Your task to perform on an android device: open app "Spotify: Music and Podcasts" (install if not already installed) Image 0: 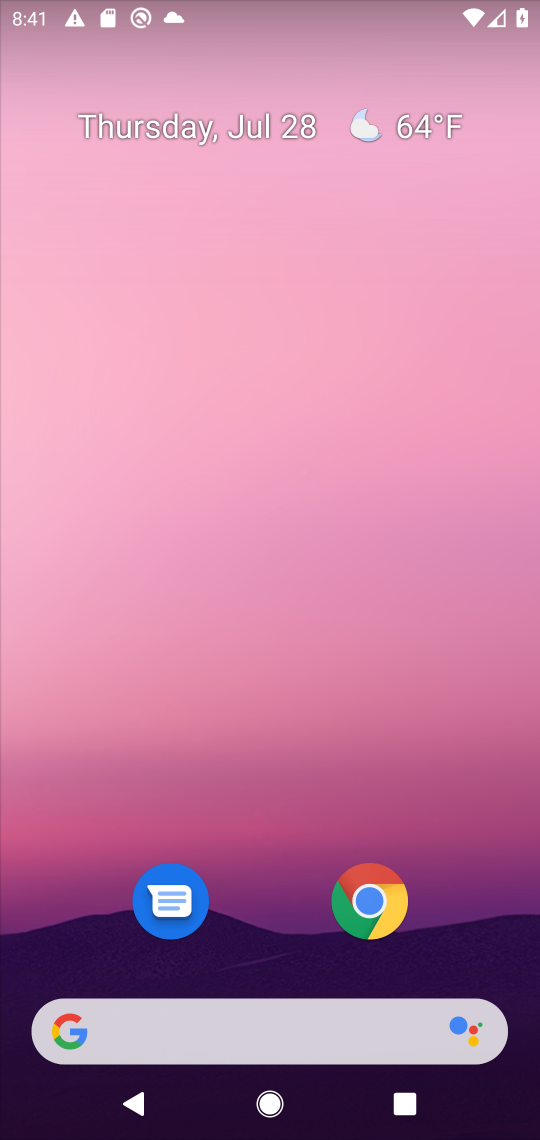
Step 0: drag from (518, 1084) to (450, 135)
Your task to perform on an android device: open app "Spotify: Music and Podcasts" (install if not already installed) Image 1: 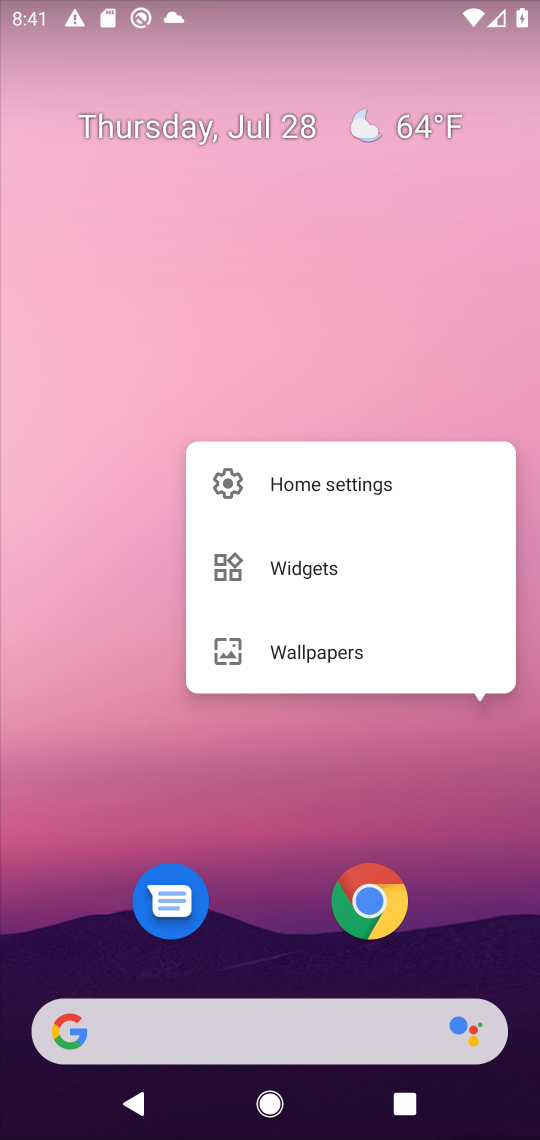
Step 1: click (76, 667)
Your task to perform on an android device: open app "Spotify: Music and Podcasts" (install if not already installed) Image 2: 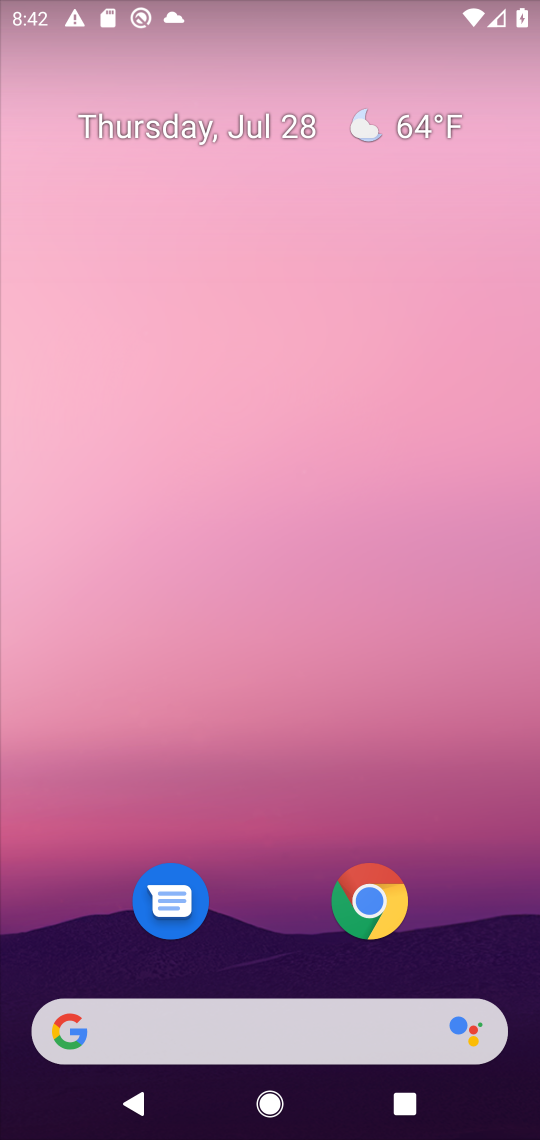
Step 2: drag from (318, 780) to (69, 710)
Your task to perform on an android device: open app "Spotify: Music and Podcasts" (install if not already installed) Image 3: 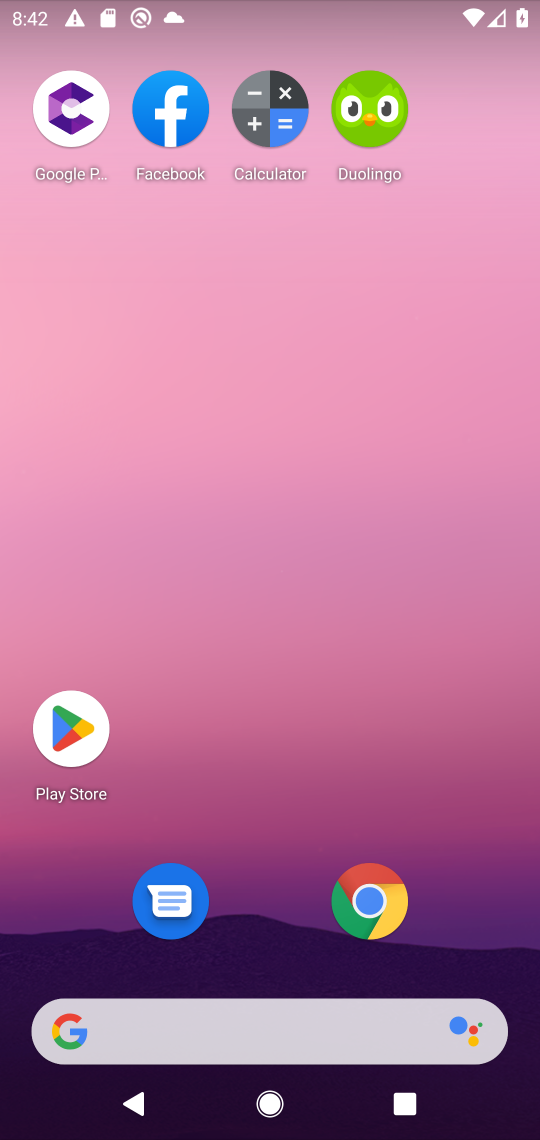
Step 3: click (52, 741)
Your task to perform on an android device: open app "Spotify: Music and Podcasts" (install if not already installed) Image 4: 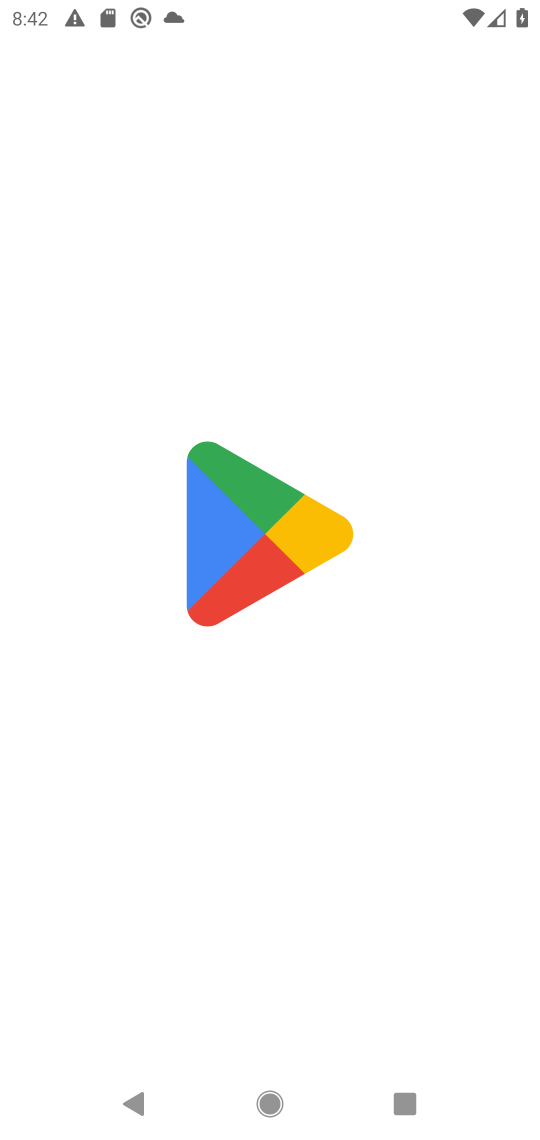
Step 4: task complete